Your task to perform on an android device: turn on airplane mode Image 0: 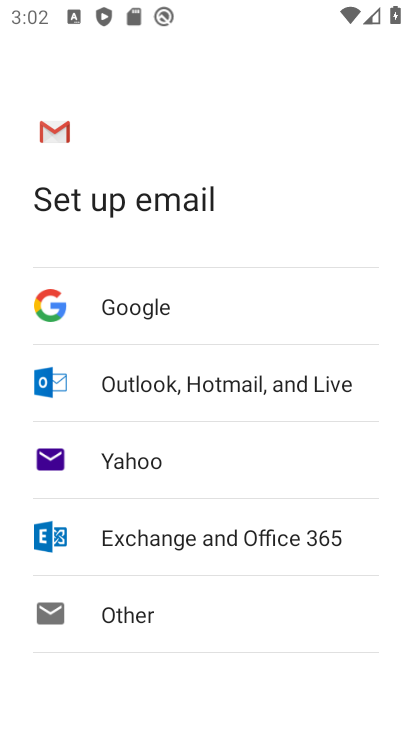
Step 0: press home button
Your task to perform on an android device: turn on airplane mode Image 1: 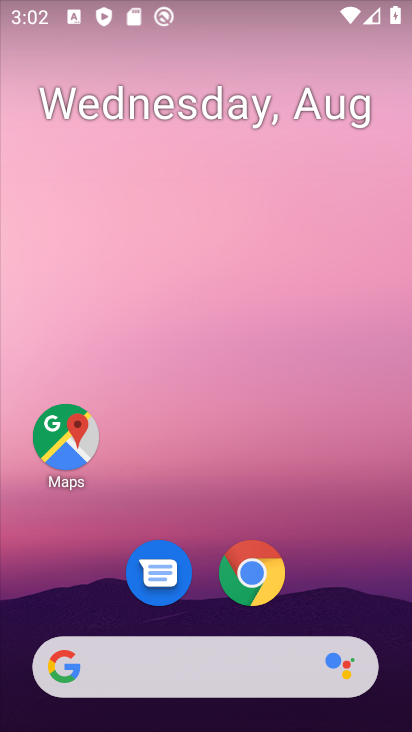
Step 1: drag from (313, 571) to (363, 6)
Your task to perform on an android device: turn on airplane mode Image 2: 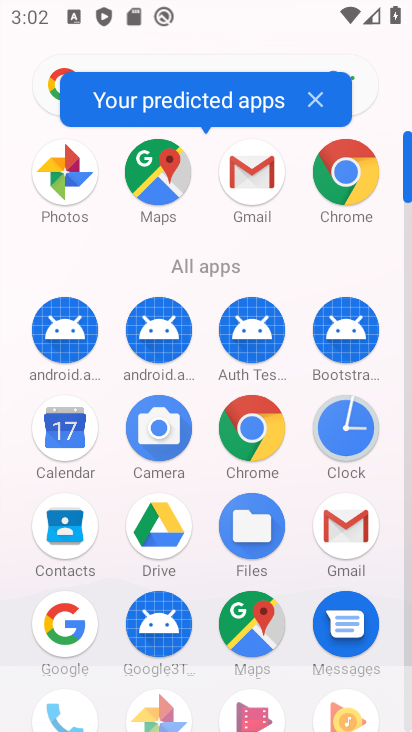
Step 2: drag from (202, 559) to (234, 160)
Your task to perform on an android device: turn on airplane mode Image 3: 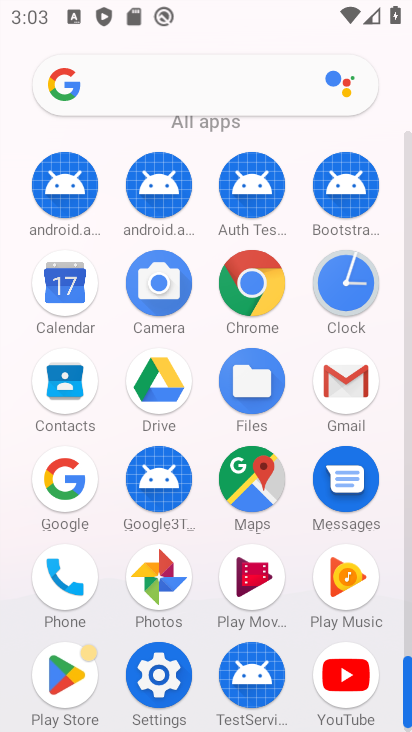
Step 3: click (157, 659)
Your task to perform on an android device: turn on airplane mode Image 4: 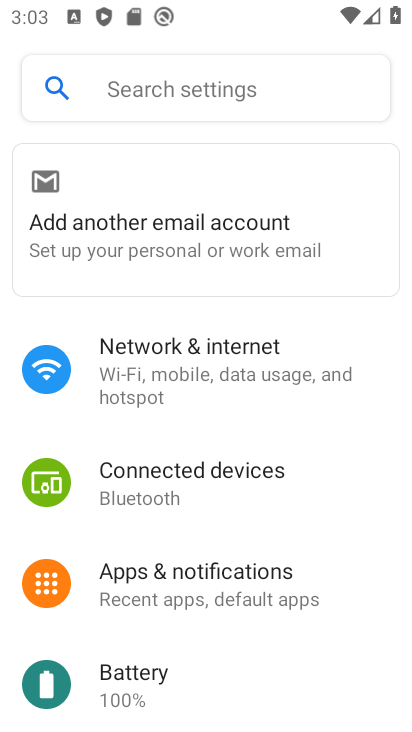
Step 4: click (192, 353)
Your task to perform on an android device: turn on airplane mode Image 5: 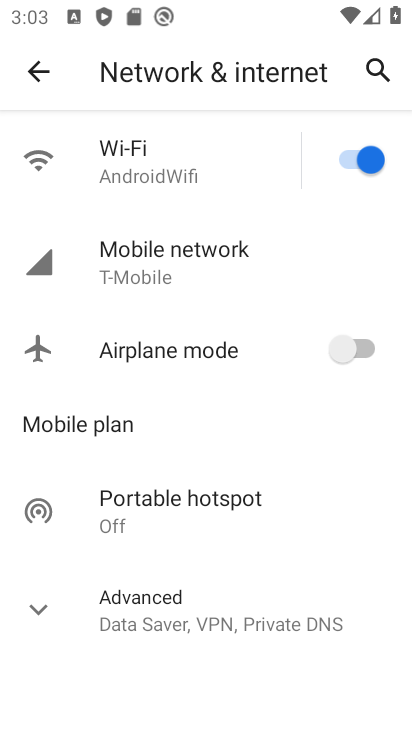
Step 5: click (359, 340)
Your task to perform on an android device: turn on airplane mode Image 6: 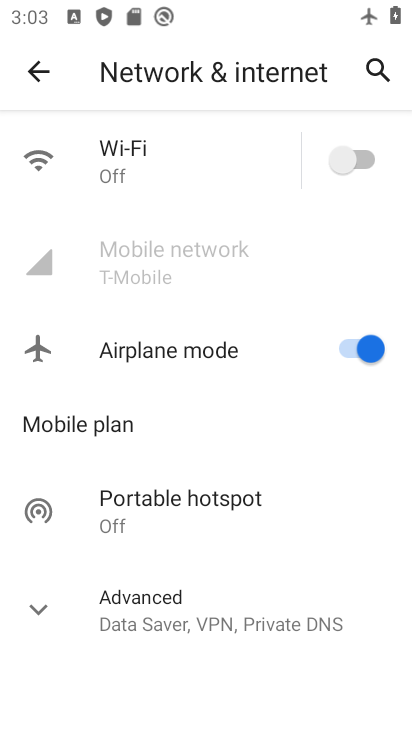
Step 6: task complete